Your task to perform on an android device: What is the recent news? Image 0: 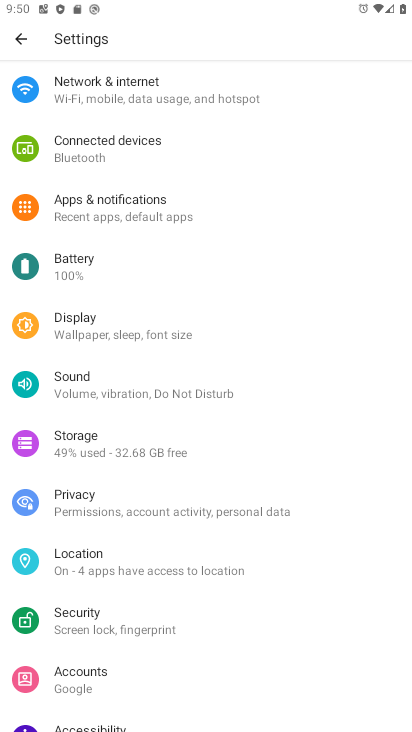
Step 0: press home button
Your task to perform on an android device: What is the recent news? Image 1: 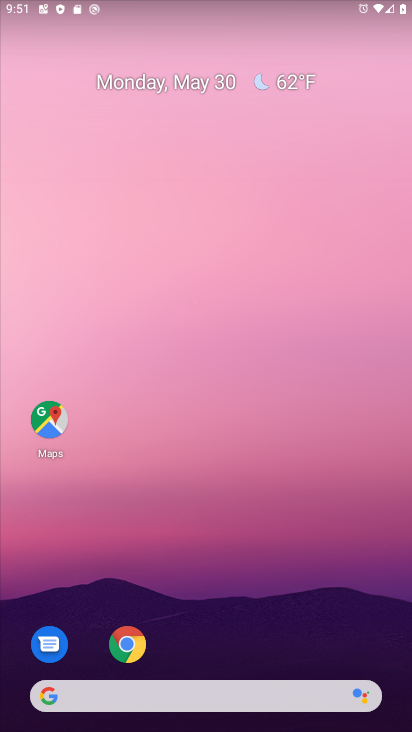
Step 1: task complete